Your task to perform on an android device: toggle location history Image 0: 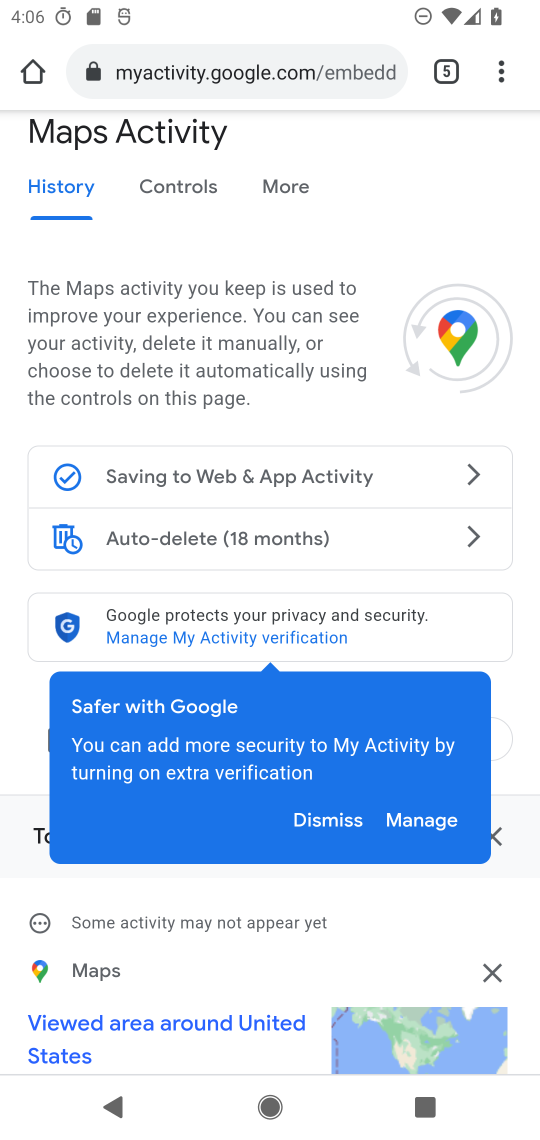
Step 0: press home button
Your task to perform on an android device: toggle location history Image 1: 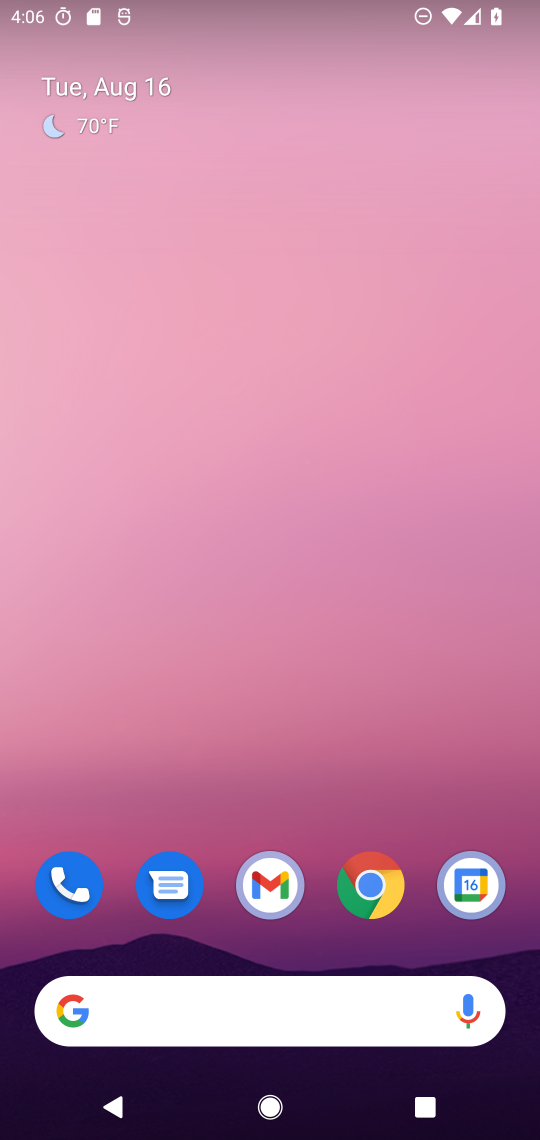
Step 1: drag from (305, 1047) to (228, 401)
Your task to perform on an android device: toggle location history Image 2: 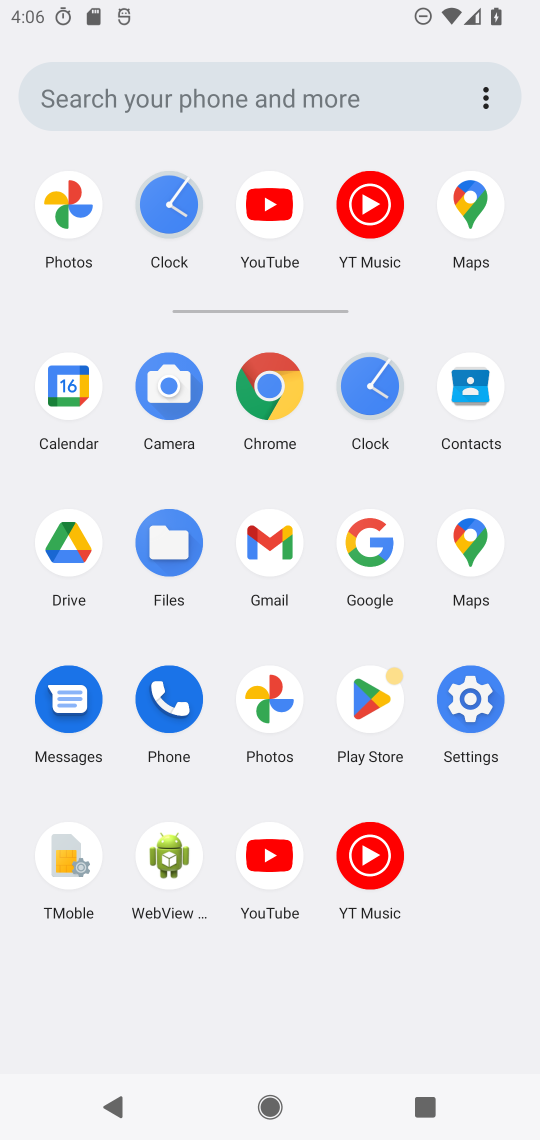
Step 2: click (452, 688)
Your task to perform on an android device: toggle location history Image 3: 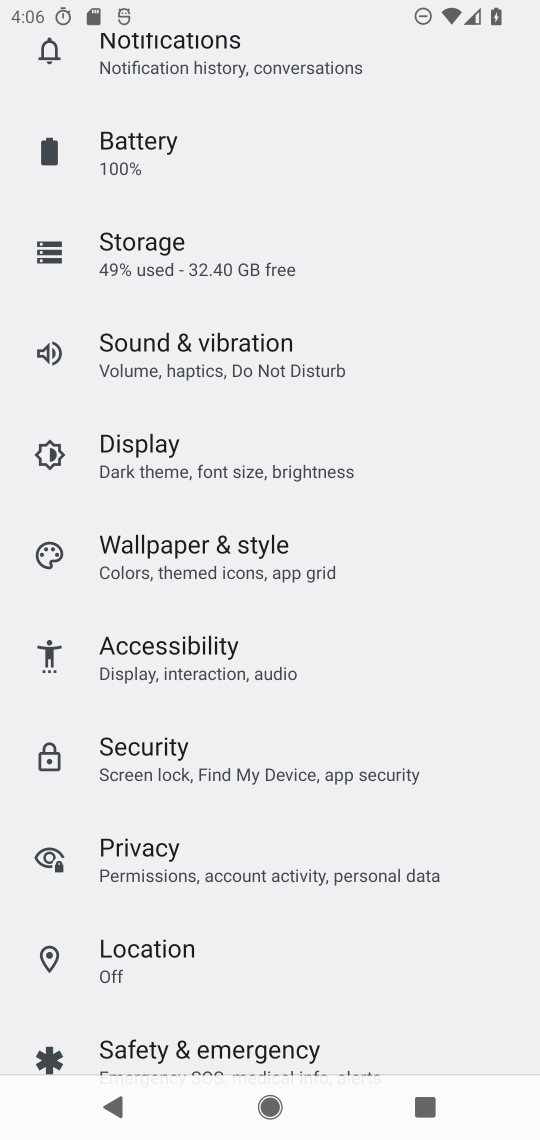
Step 3: drag from (231, 921) to (200, 322)
Your task to perform on an android device: toggle location history Image 4: 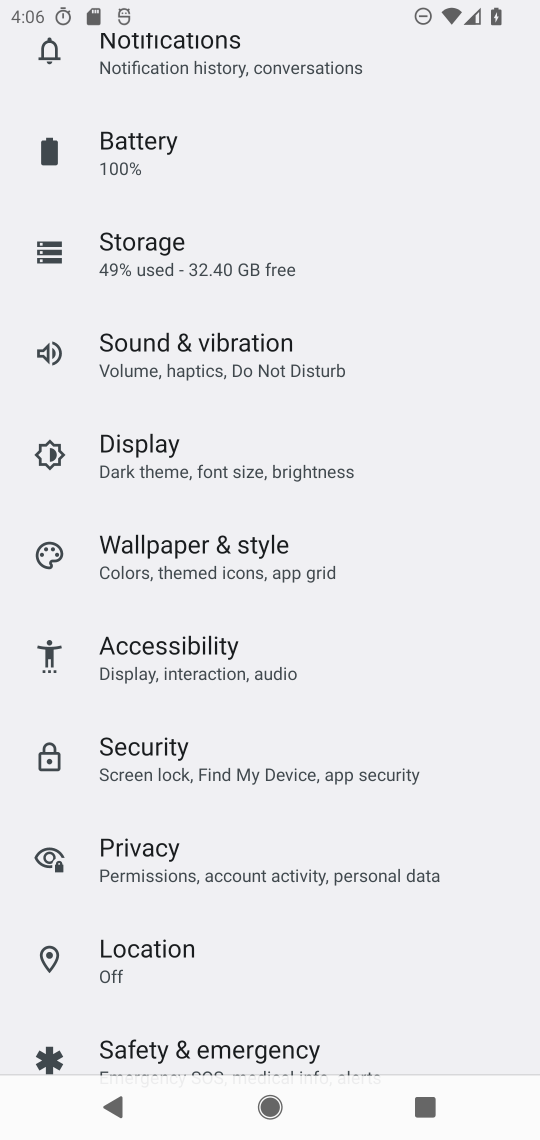
Step 4: click (256, 963)
Your task to perform on an android device: toggle location history Image 5: 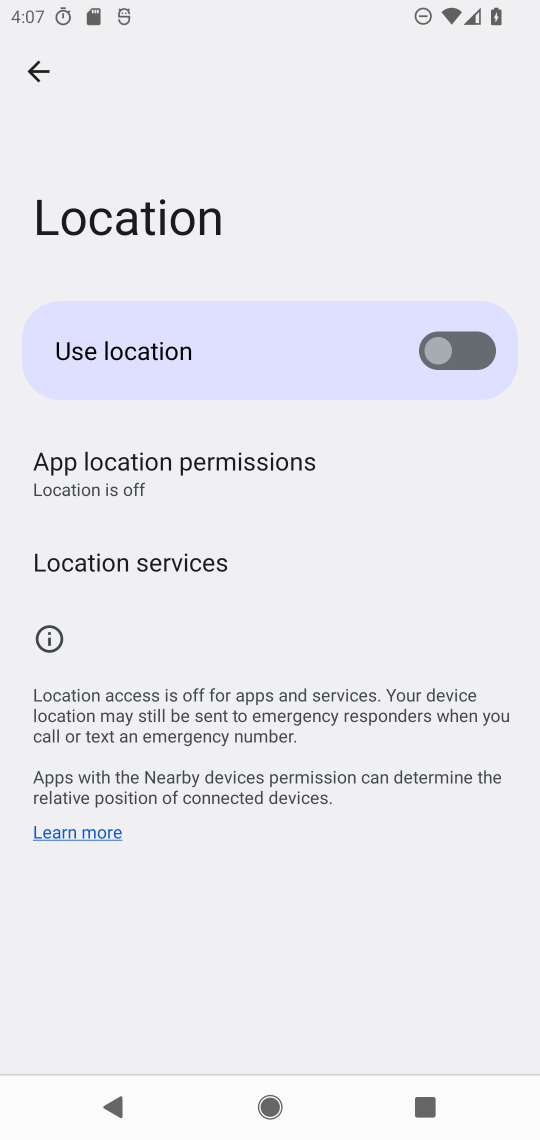
Step 5: click (154, 570)
Your task to perform on an android device: toggle location history Image 6: 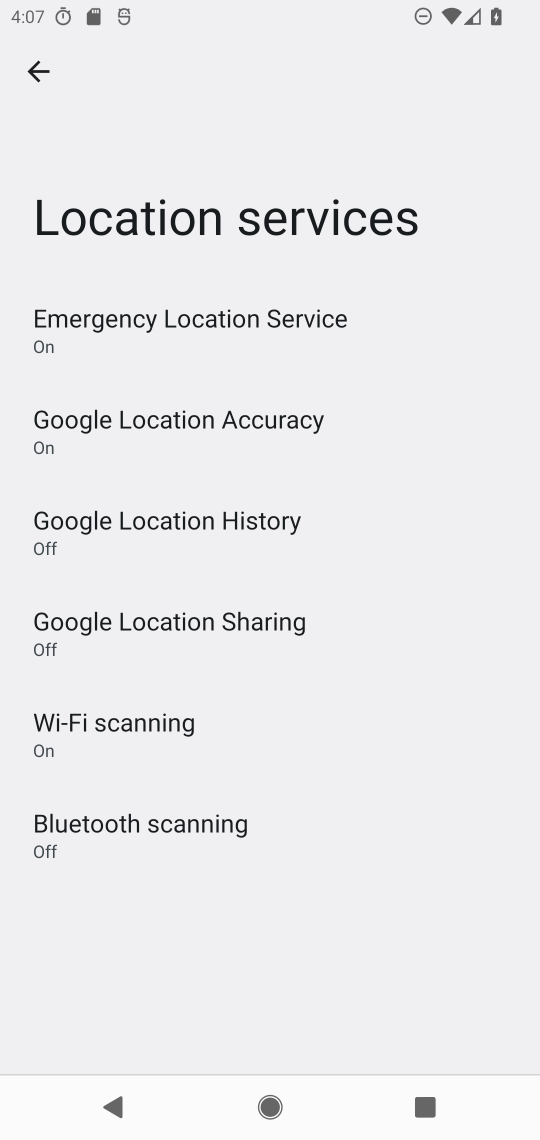
Step 6: click (284, 526)
Your task to perform on an android device: toggle location history Image 7: 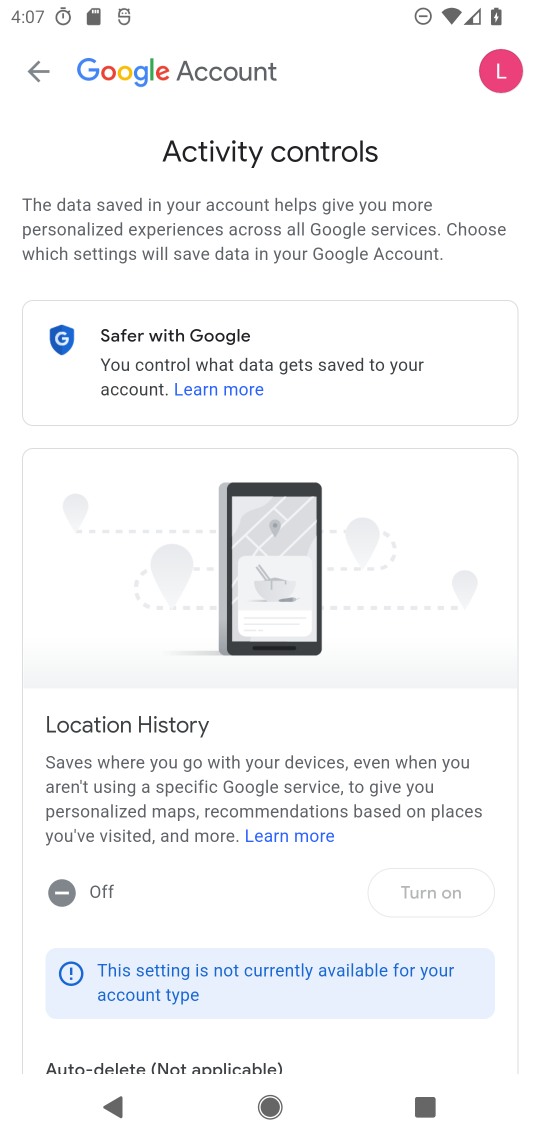
Step 7: click (428, 886)
Your task to perform on an android device: toggle location history Image 8: 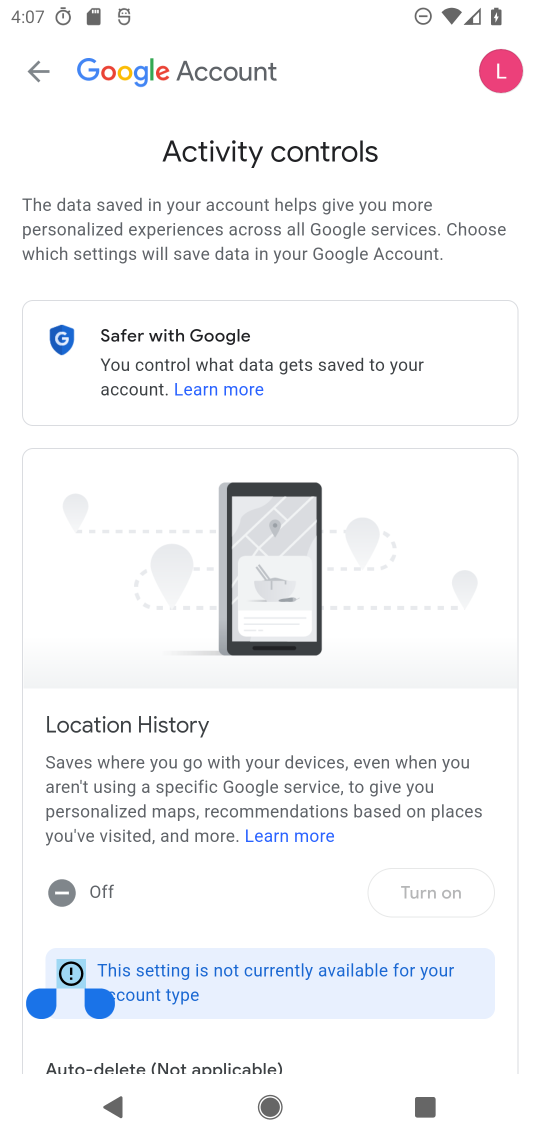
Step 8: click (180, 876)
Your task to perform on an android device: toggle location history Image 9: 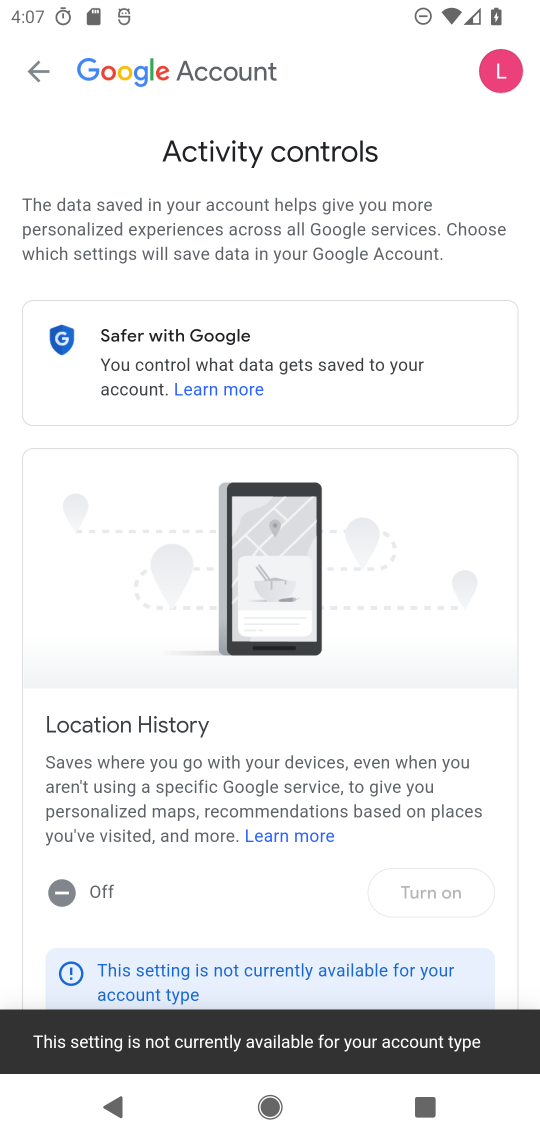
Step 9: click (77, 877)
Your task to perform on an android device: toggle location history Image 10: 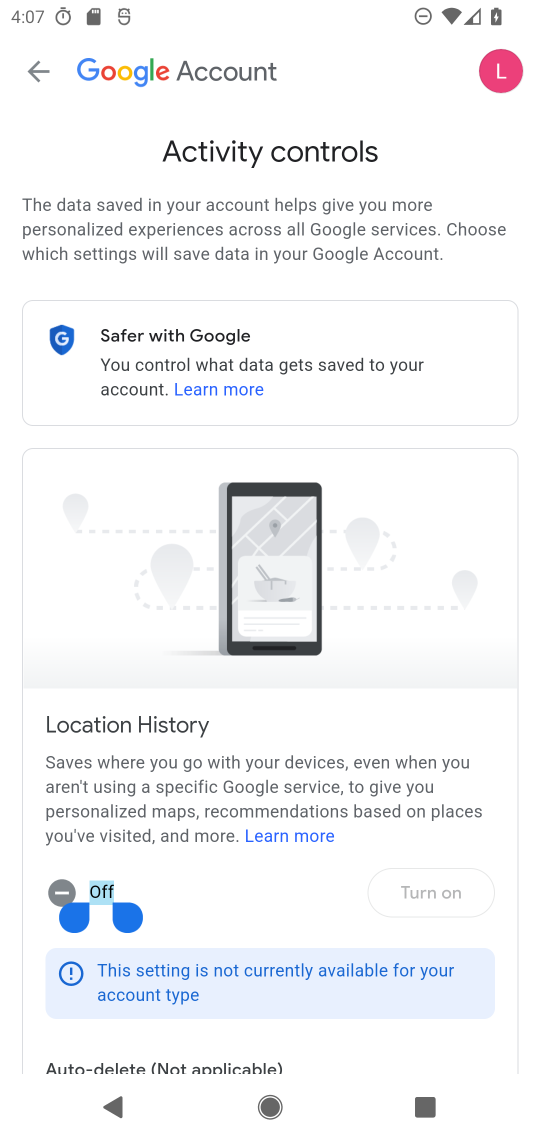
Step 10: click (116, 890)
Your task to perform on an android device: toggle location history Image 11: 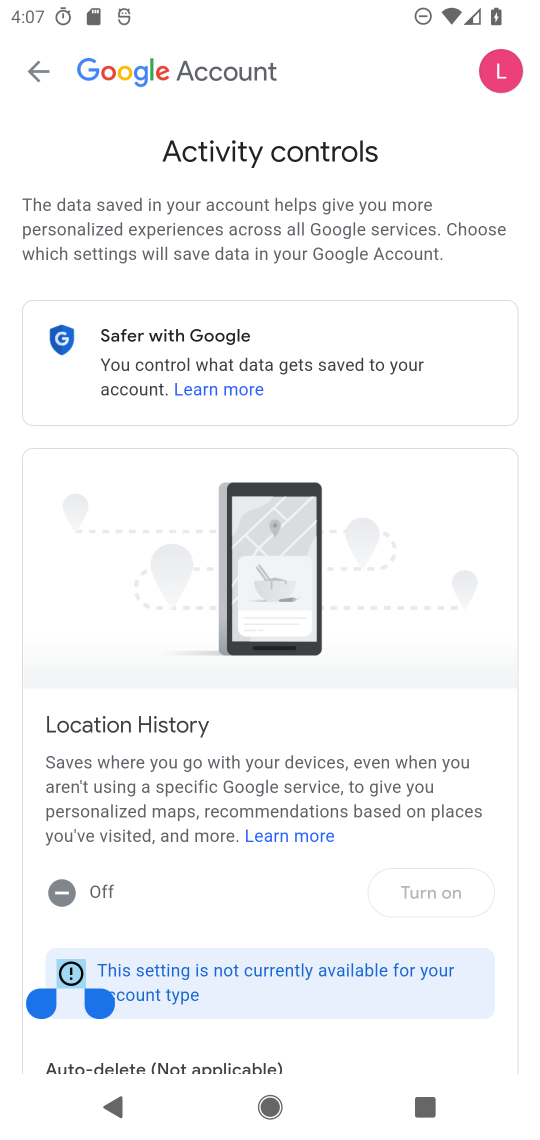
Step 11: drag from (111, 890) to (85, 940)
Your task to perform on an android device: toggle location history Image 12: 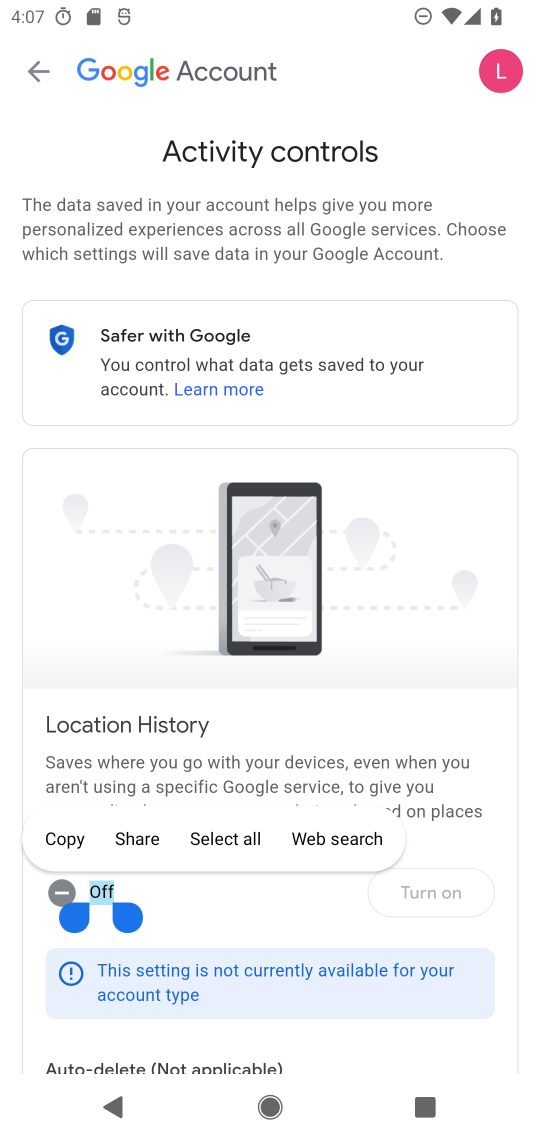
Step 12: click (250, 918)
Your task to perform on an android device: toggle location history Image 13: 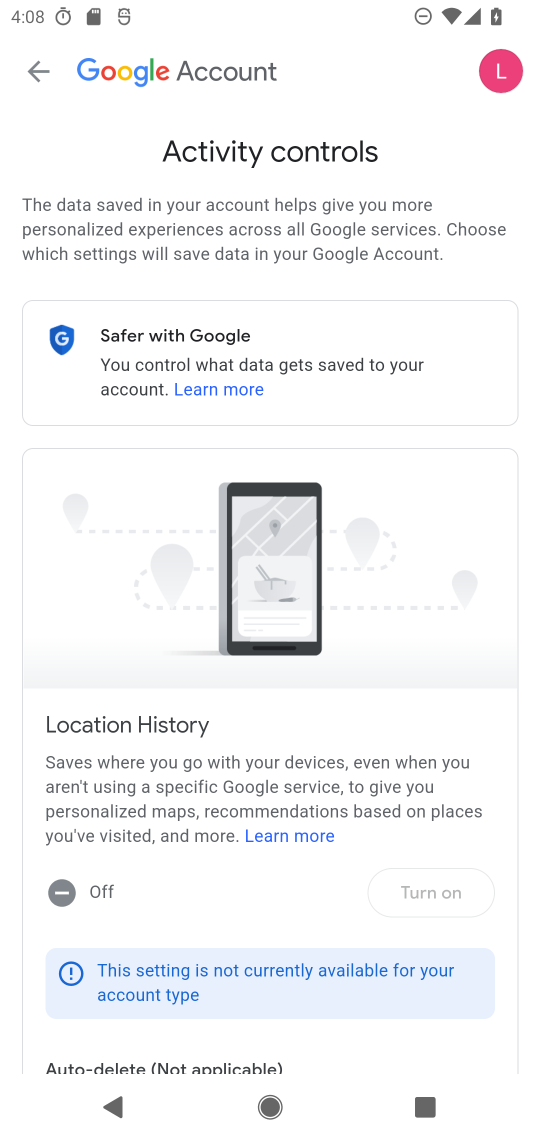
Step 13: click (105, 884)
Your task to perform on an android device: toggle location history Image 14: 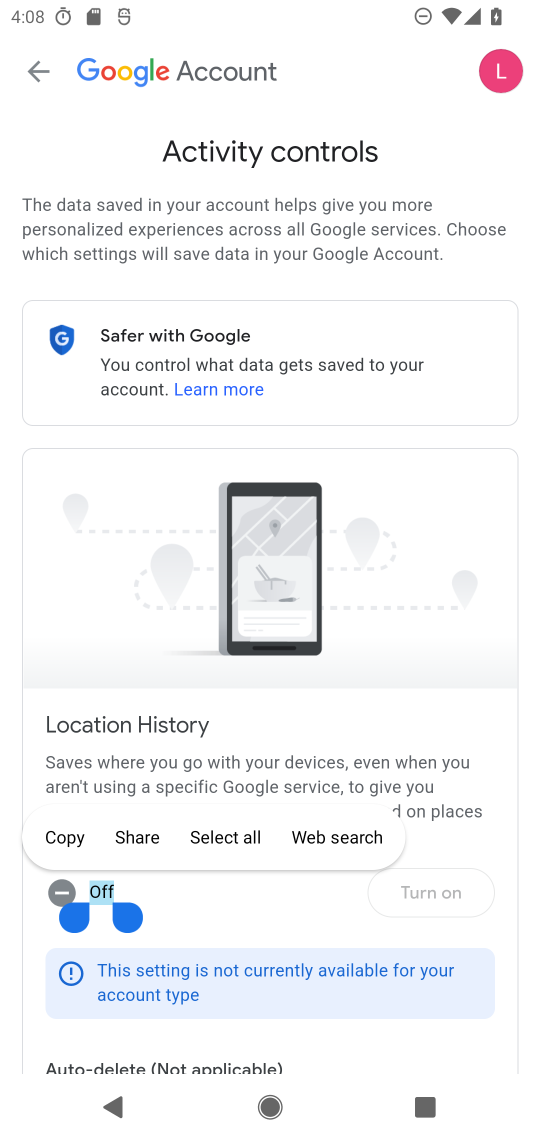
Step 14: task complete